Your task to perform on an android device: delete location history Image 0: 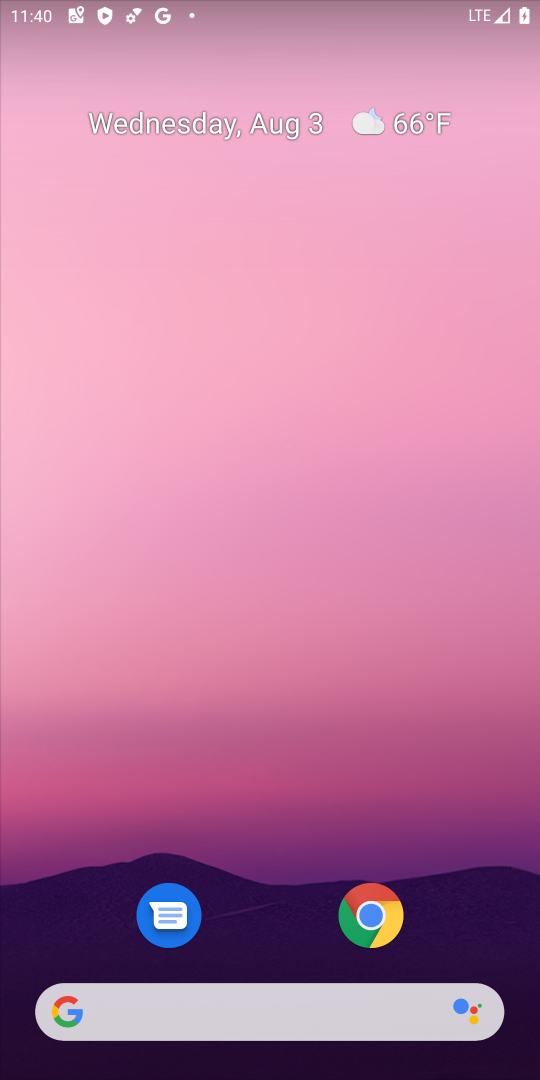
Step 0: press home button
Your task to perform on an android device: delete location history Image 1: 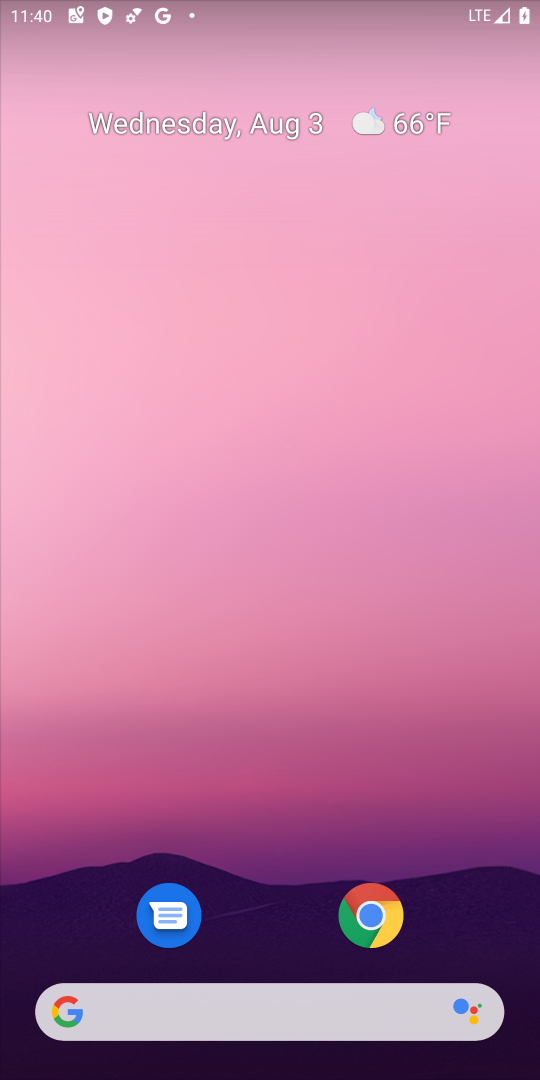
Step 1: drag from (235, 54) to (189, 245)
Your task to perform on an android device: delete location history Image 2: 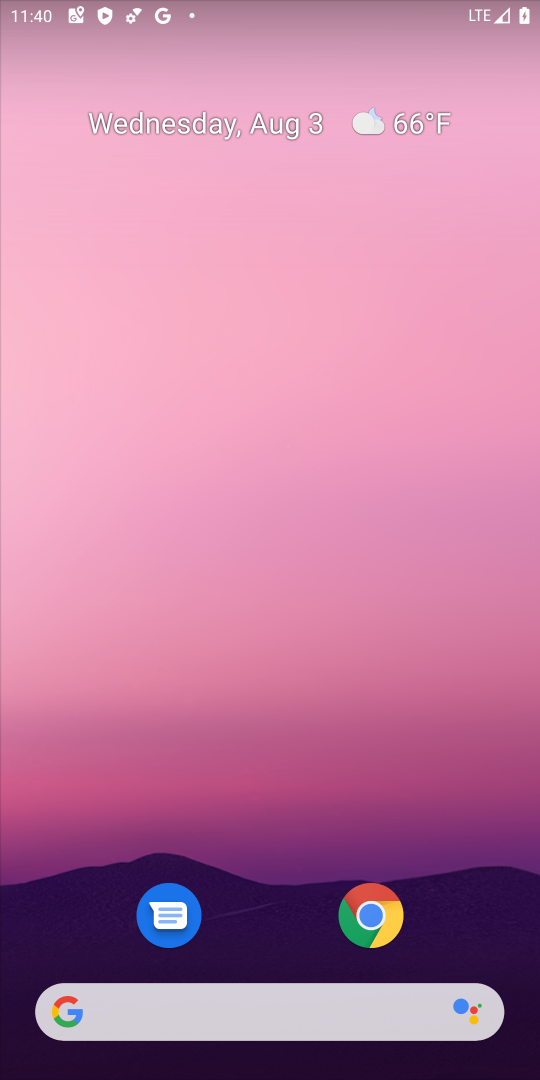
Step 2: drag from (304, 878) to (302, 40)
Your task to perform on an android device: delete location history Image 3: 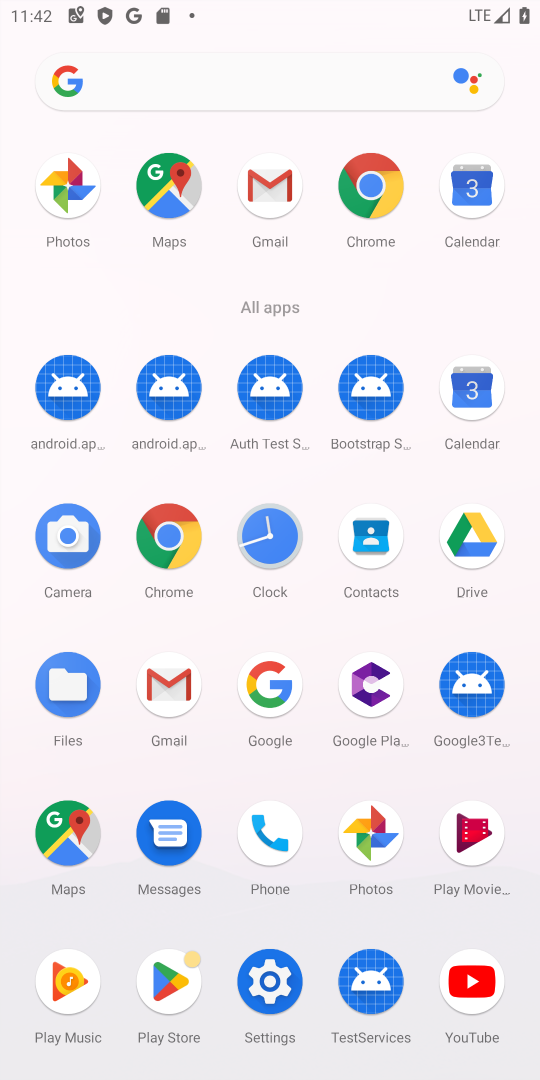
Step 3: click (47, 850)
Your task to perform on an android device: delete location history Image 4: 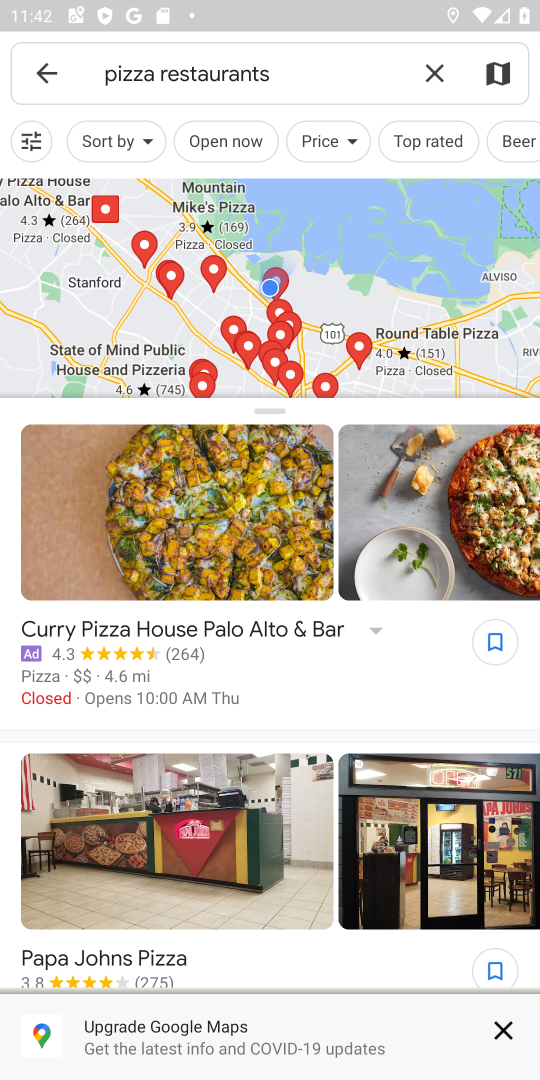
Step 4: click (435, 72)
Your task to perform on an android device: delete location history Image 5: 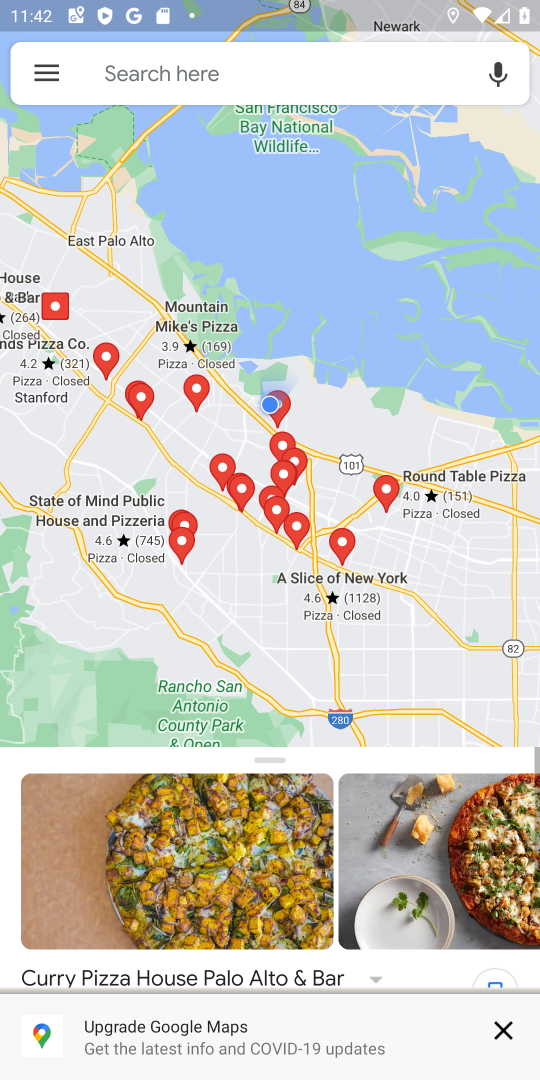
Step 5: click (41, 69)
Your task to perform on an android device: delete location history Image 6: 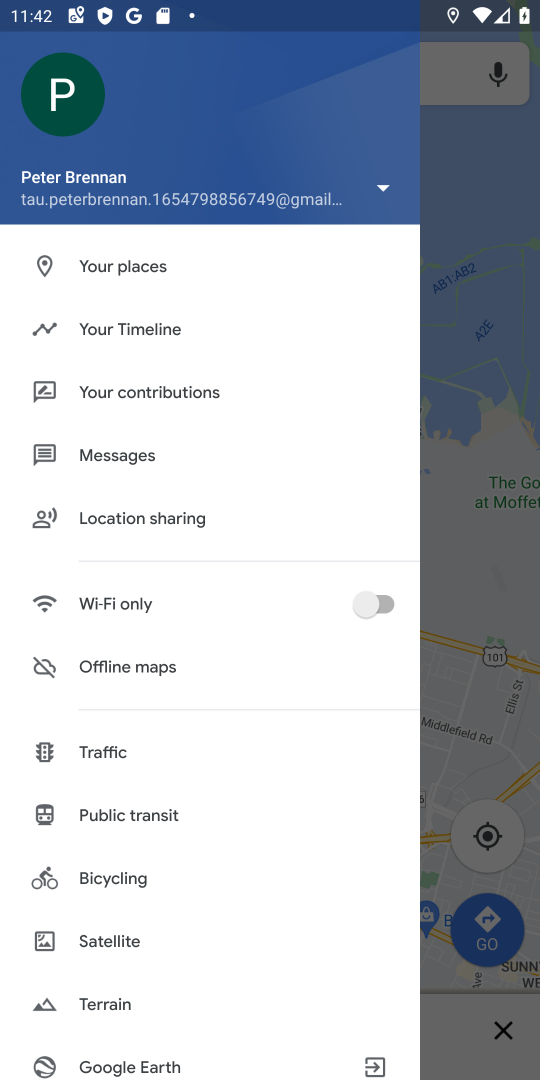
Step 6: click (25, 344)
Your task to perform on an android device: delete location history Image 7: 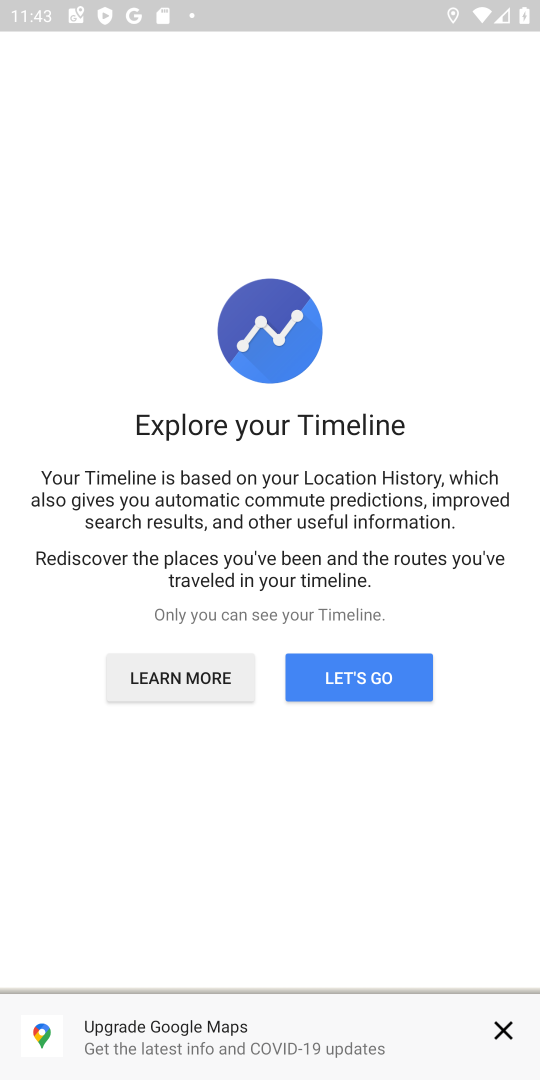
Step 7: click (346, 679)
Your task to perform on an android device: delete location history Image 8: 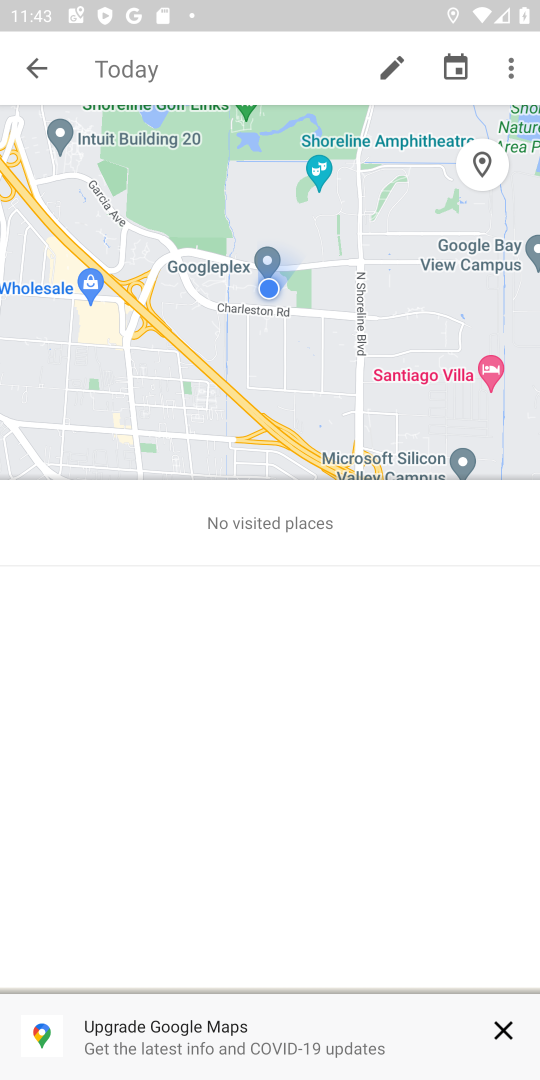
Step 8: click (499, 69)
Your task to perform on an android device: delete location history Image 9: 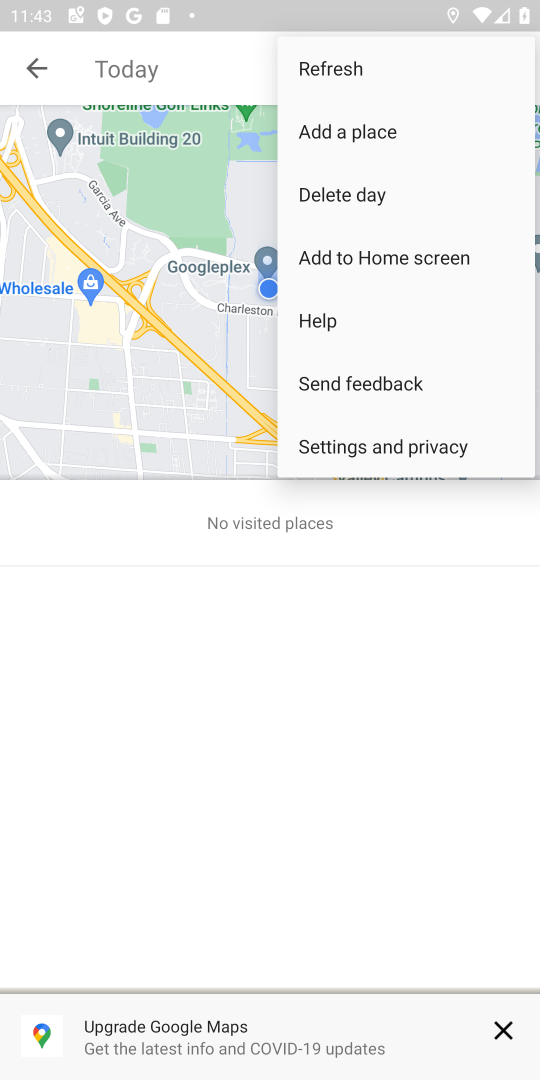
Step 9: click (418, 447)
Your task to perform on an android device: delete location history Image 10: 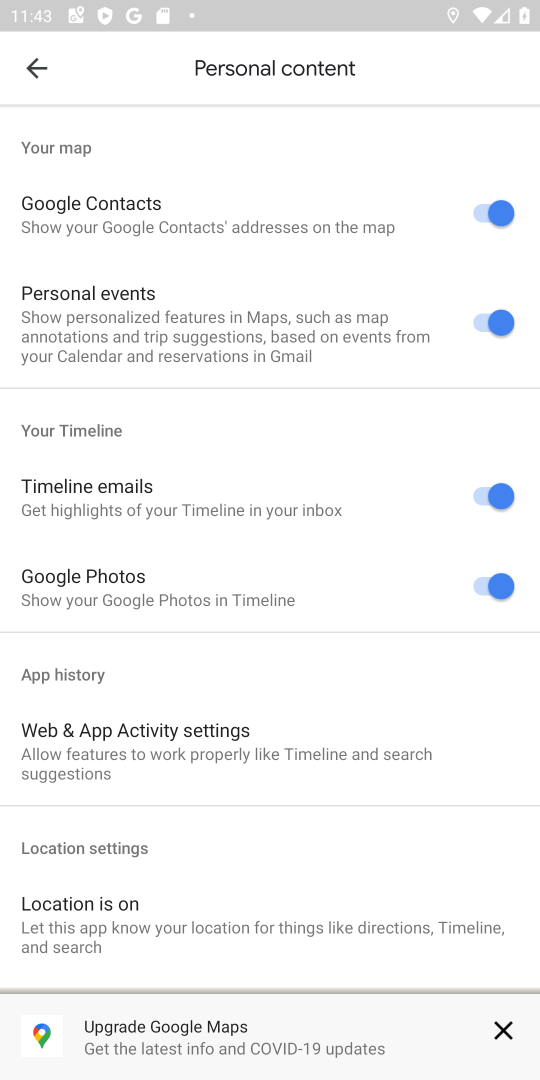
Step 10: drag from (247, 833) to (185, 364)
Your task to perform on an android device: delete location history Image 11: 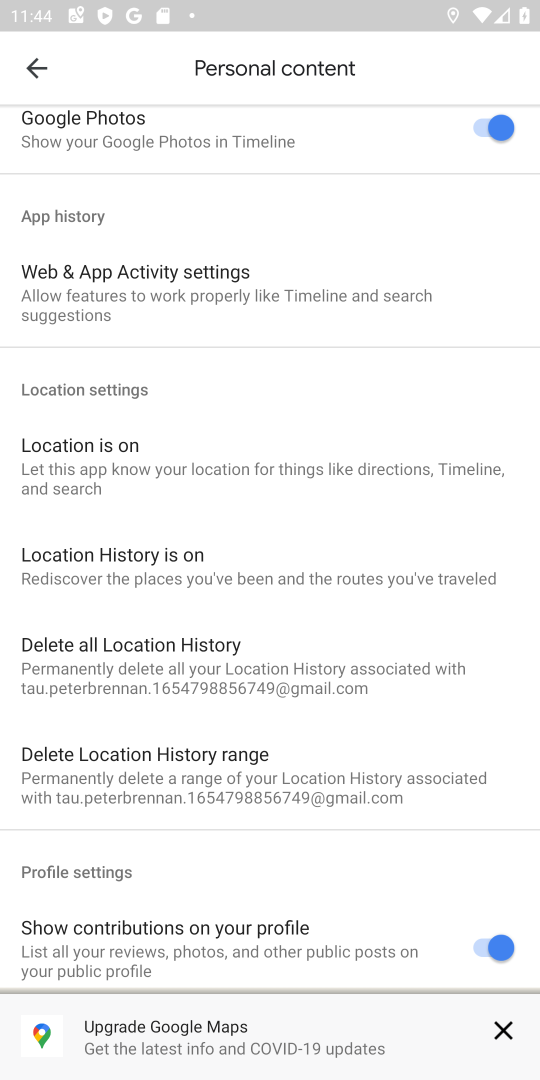
Step 11: click (63, 579)
Your task to perform on an android device: delete location history Image 12: 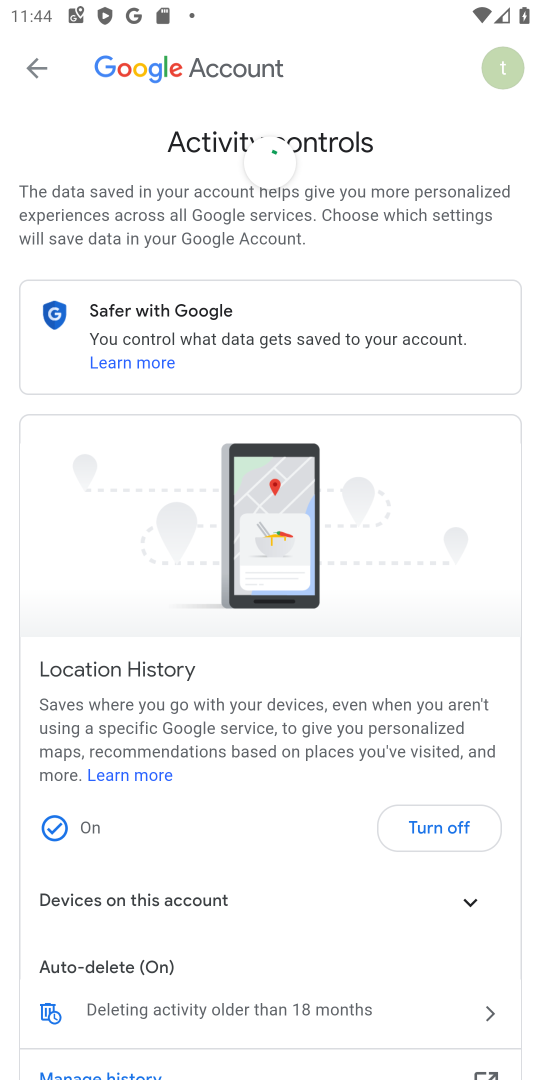
Step 12: click (45, 70)
Your task to perform on an android device: delete location history Image 13: 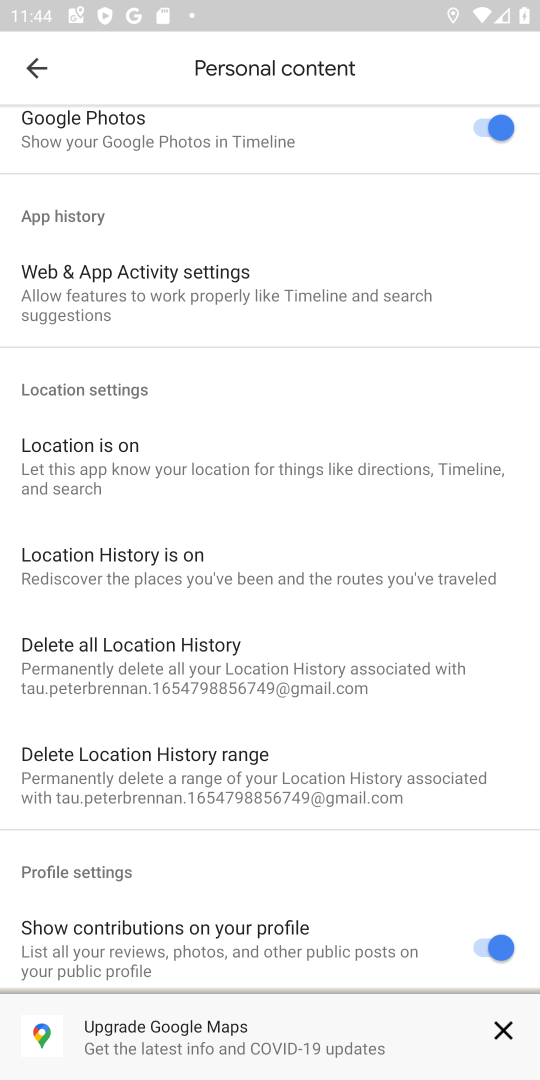
Step 13: click (246, 664)
Your task to perform on an android device: delete location history Image 14: 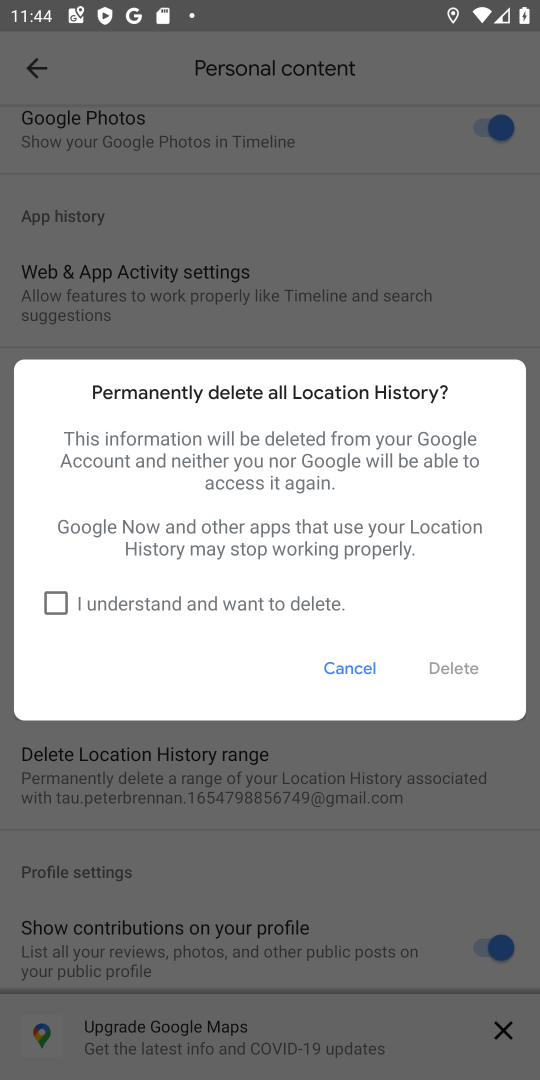
Step 14: click (222, 608)
Your task to perform on an android device: delete location history Image 15: 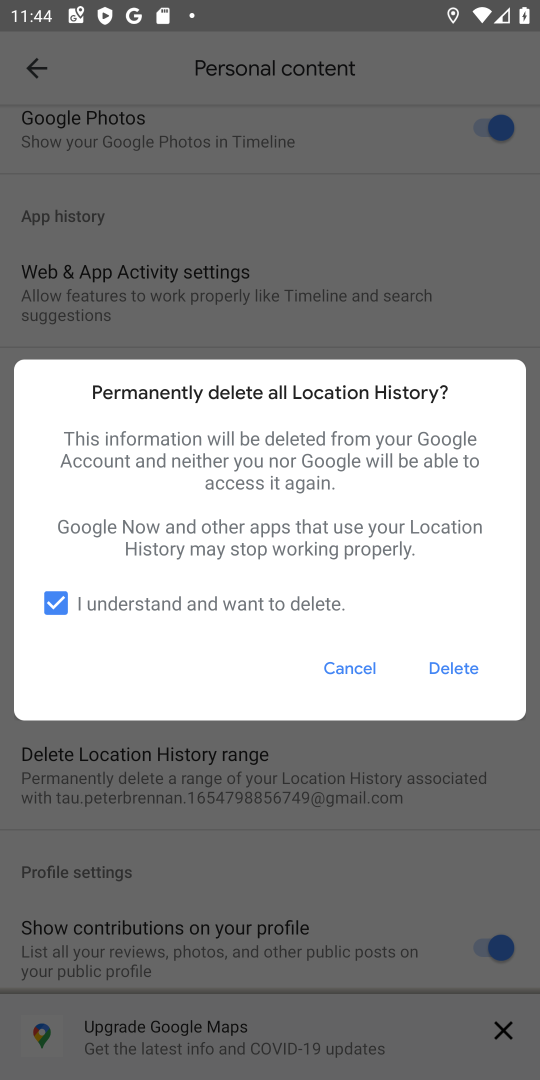
Step 15: click (438, 675)
Your task to perform on an android device: delete location history Image 16: 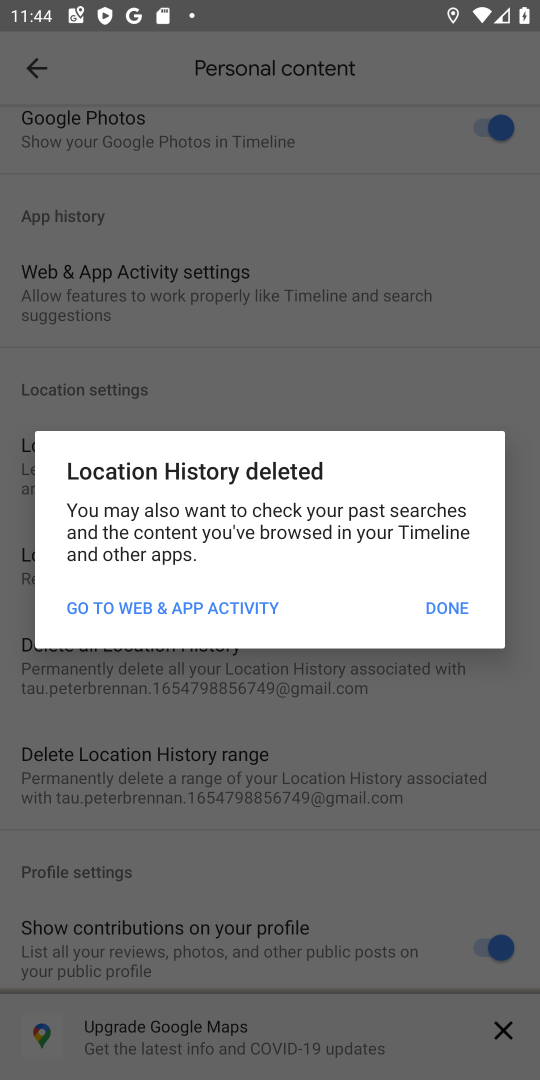
Step 16: task complete